Your task to perform on an android device: Go to Maps Image 0: 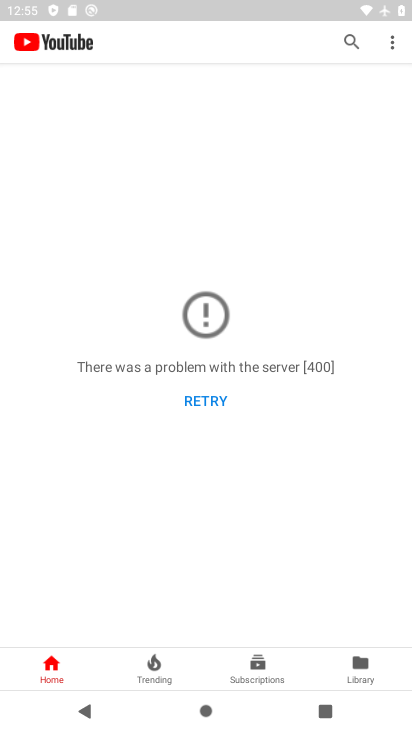
Step 0: press home button
Your task to perform on an android device: Go to Maps Image 1: 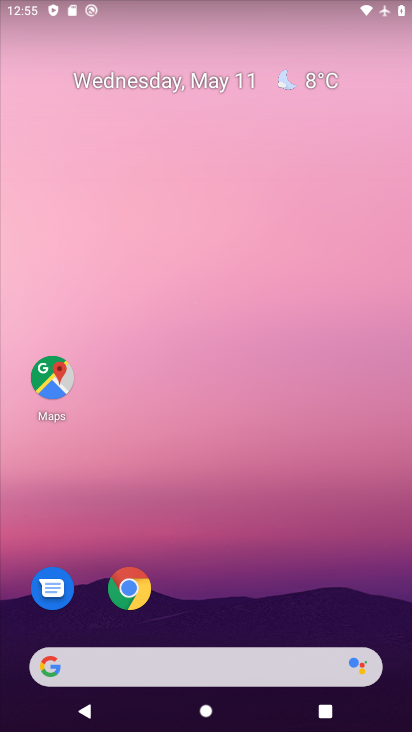
Step 1: click (63, 387)
Your task to perform on an android device: Go to Maps Image 2: 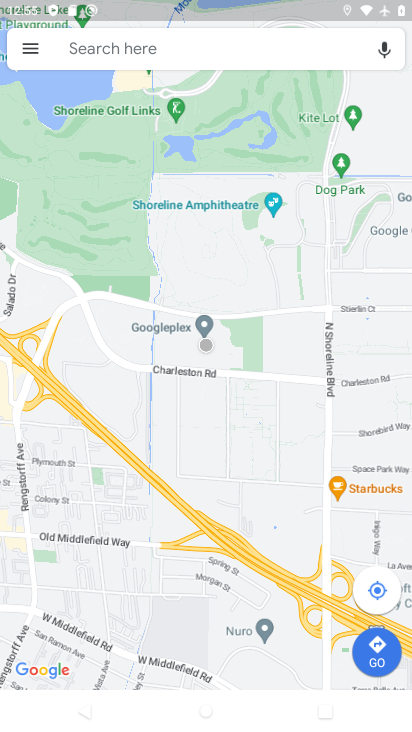
Step 2: task complete